Your task to perform on an android device: Open battery settings Image 0: 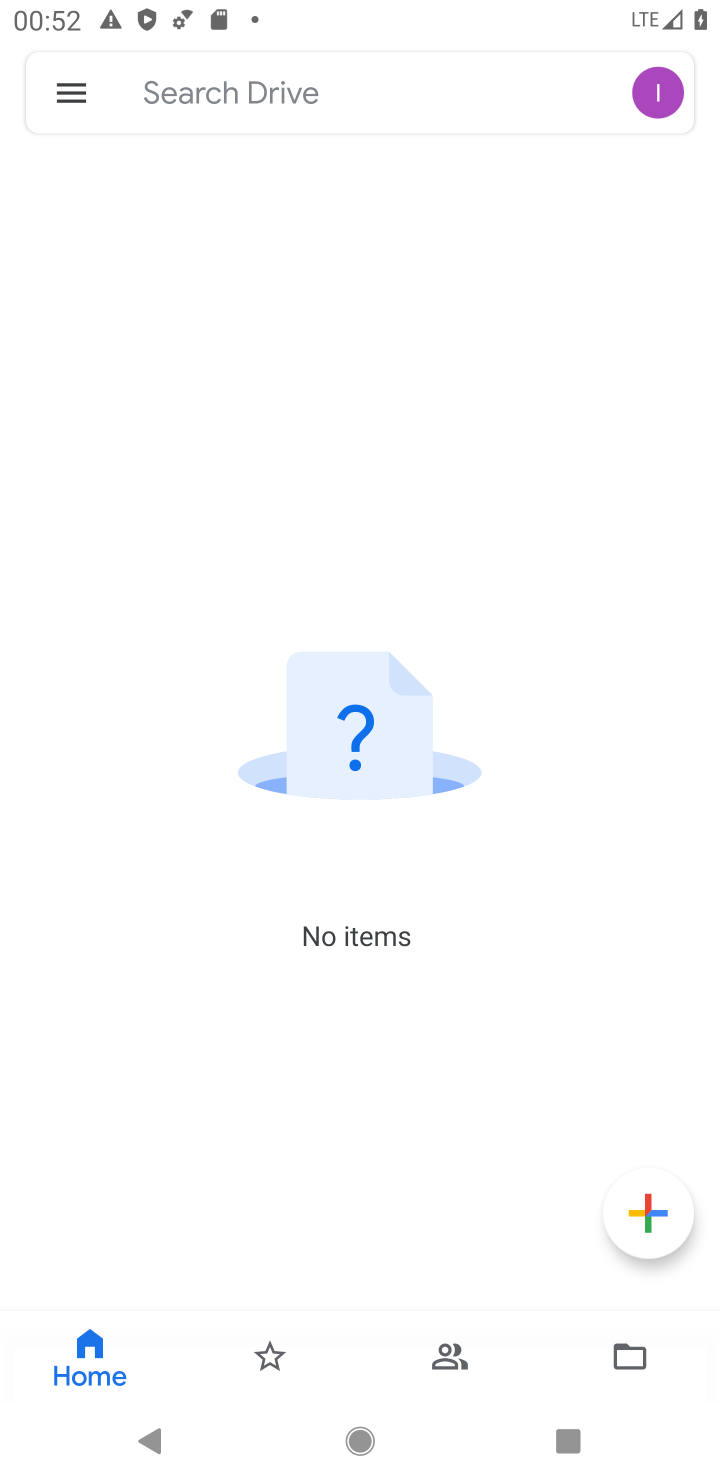
Step 0: click (359, 1442)
Your task to perform on an android device: Open battery settings Image 1: 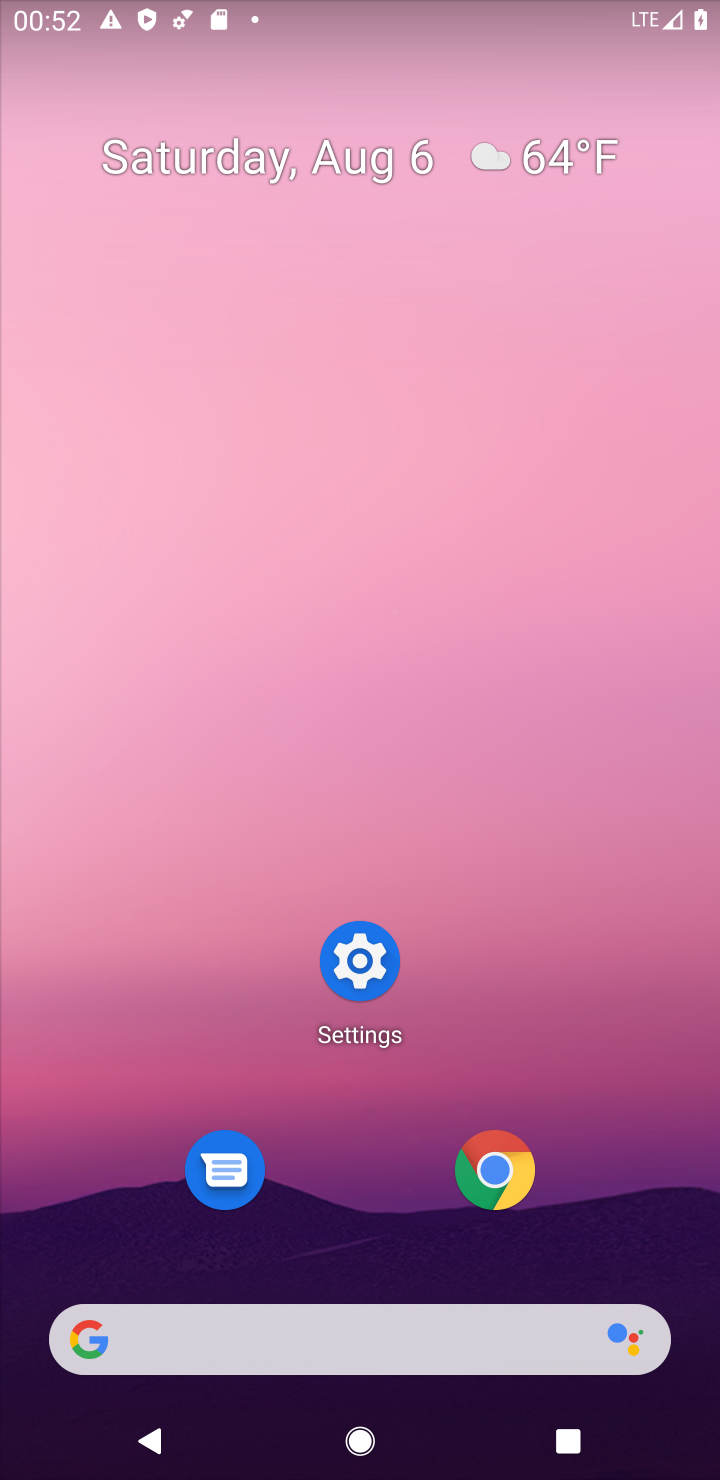
Step 1: click (342, 970)
Your task to perform on an android device: Open battery settings Image 2: 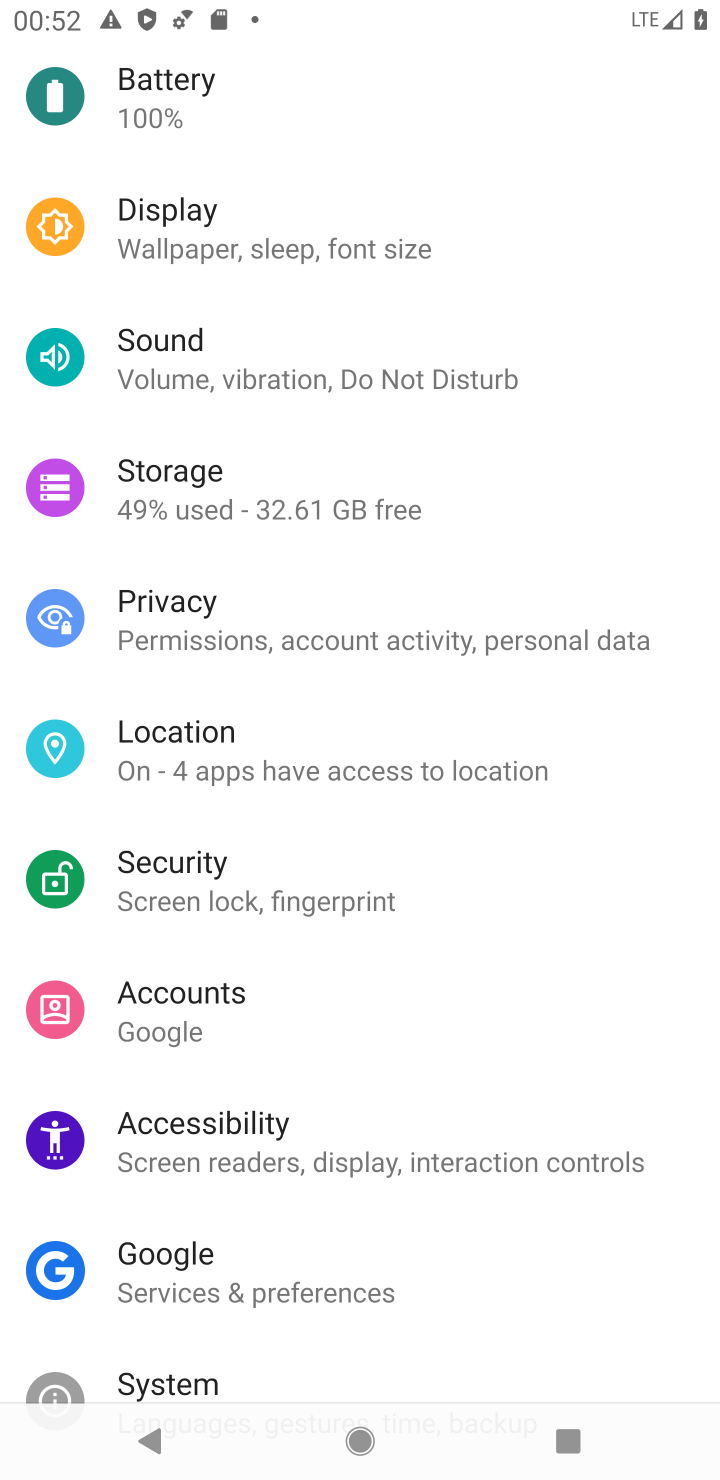
Step 2: drag from (472, 563) to (467, 890)
Your task to perform on an android device: Open battery settings Image 3: 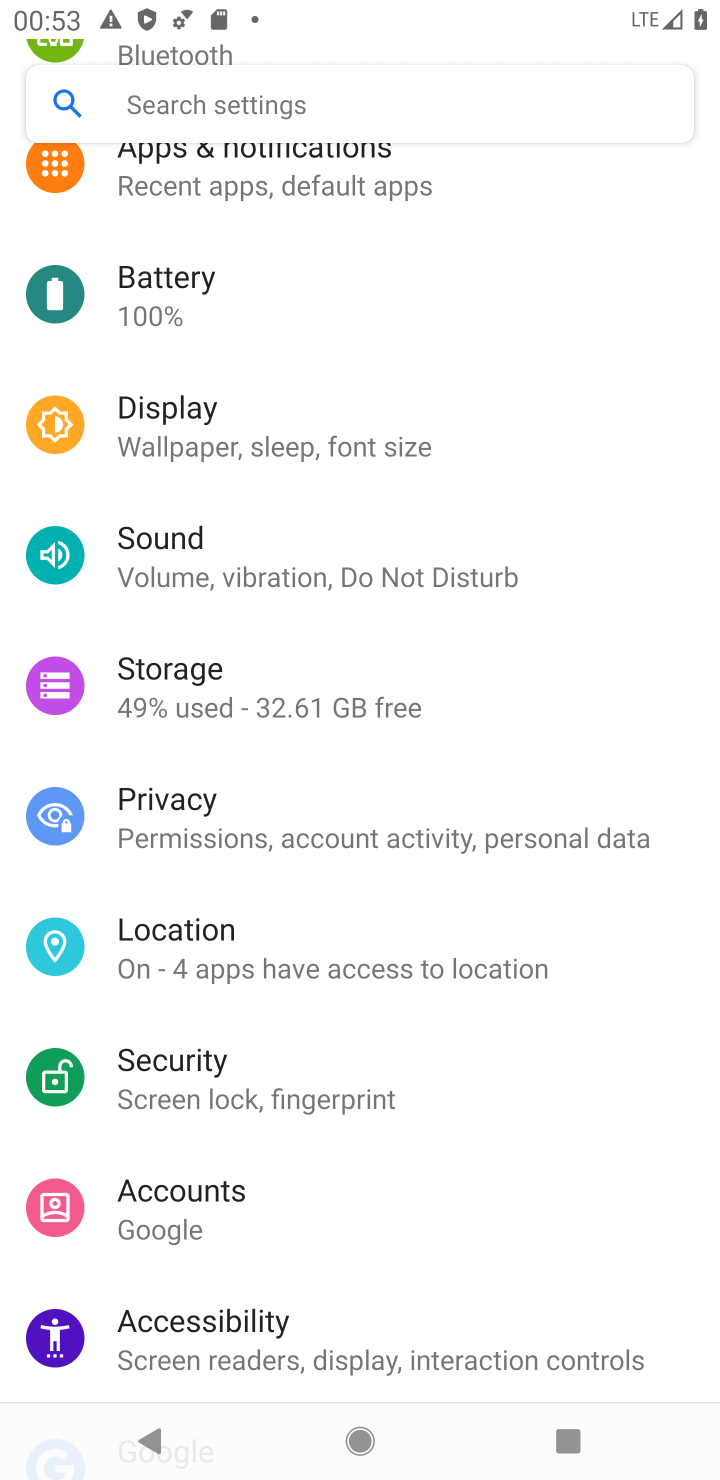
Step 3: click (208, 312)
Your task to perform on an android device: Open battery settings Image 4: 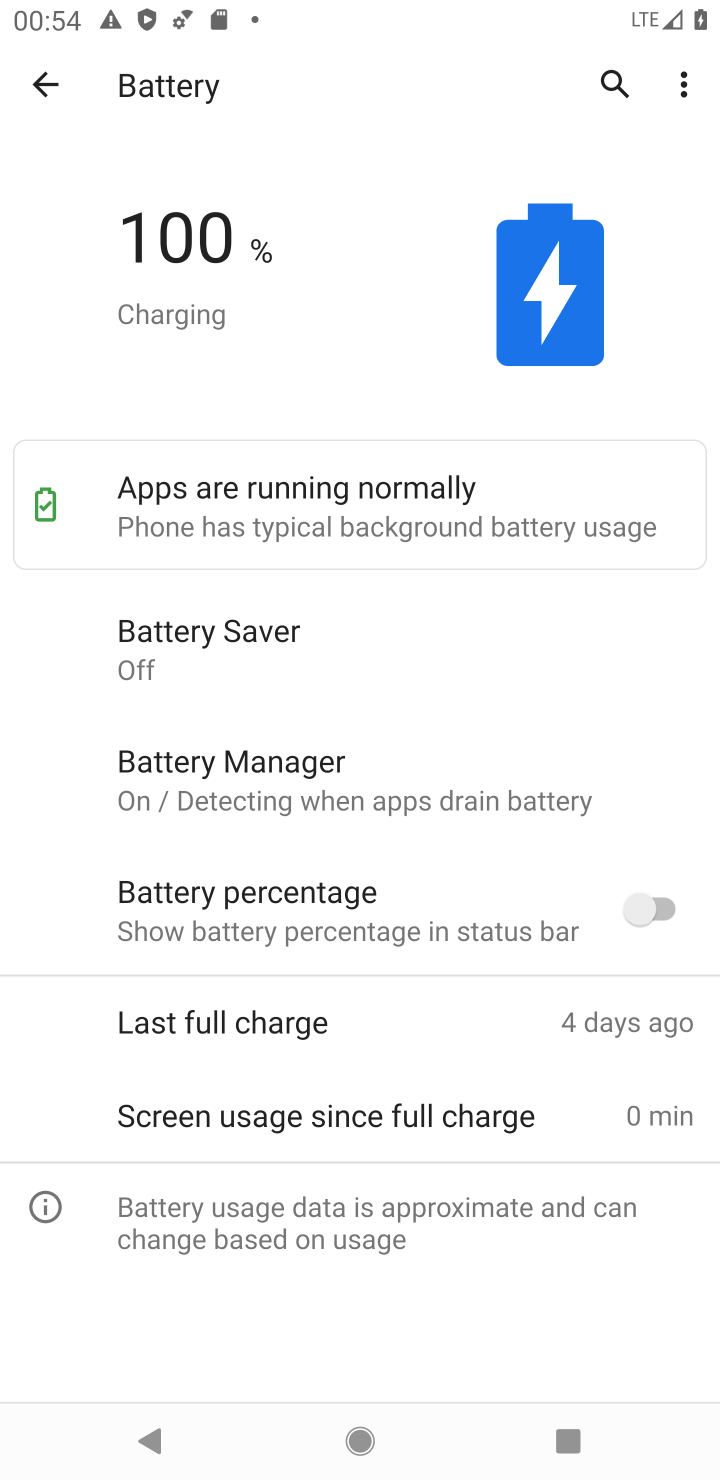
Step 4: task complete